Your task to perform on an android device: turn on showing notifications on the lock screen Image 0: 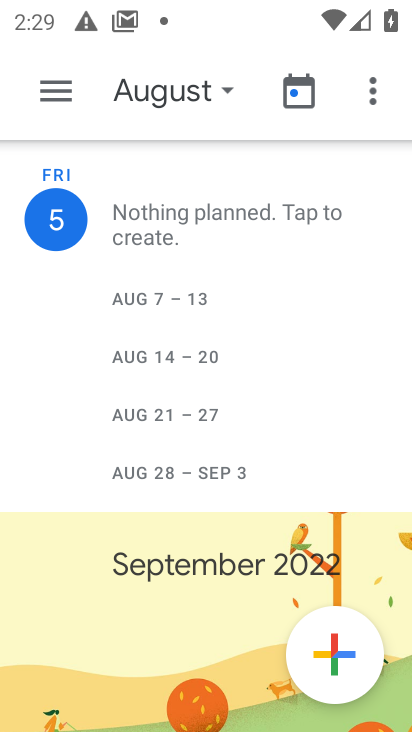
Step 0: press home button
Your task to perform on an android device: turn on showing notifications on the lock screen Image 1: 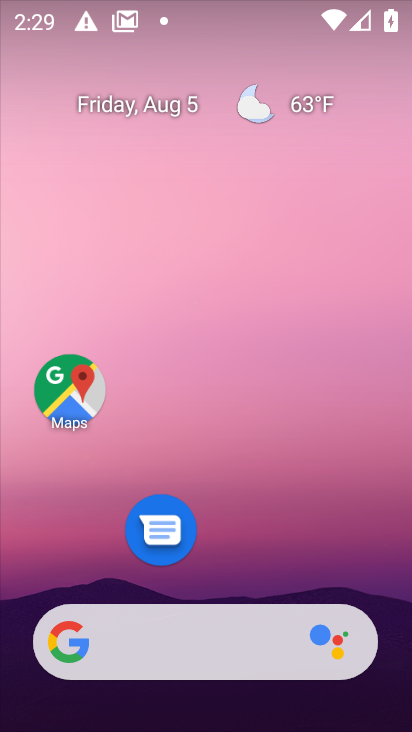
Step 1: drag from (248, 626) to (261, 80)
Your task to perform on an android device: turn on showing notifications on the lock screen Image 2: 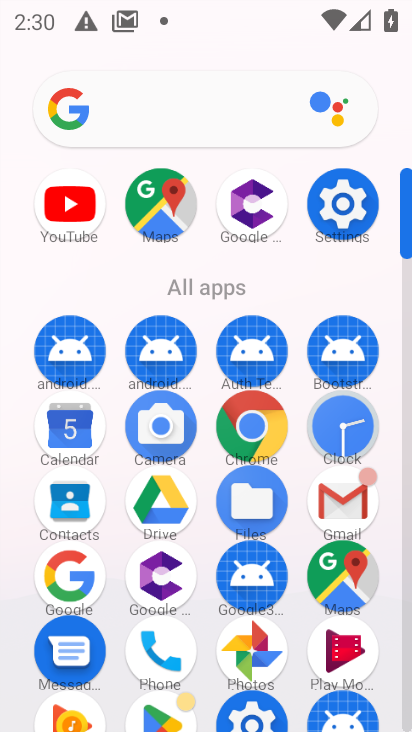
Step 2: click (328, 207)
Your task to perform on an android device: turn on showing notifications on the lock screen Image 3: 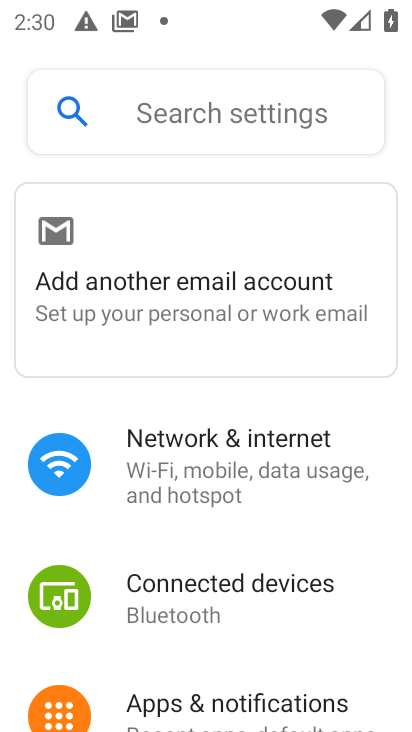
Step 3: drag from (266, 411) to (275, 78)
Your task to perform on an android device: turn on showing notifications on the lock screen Image 4: 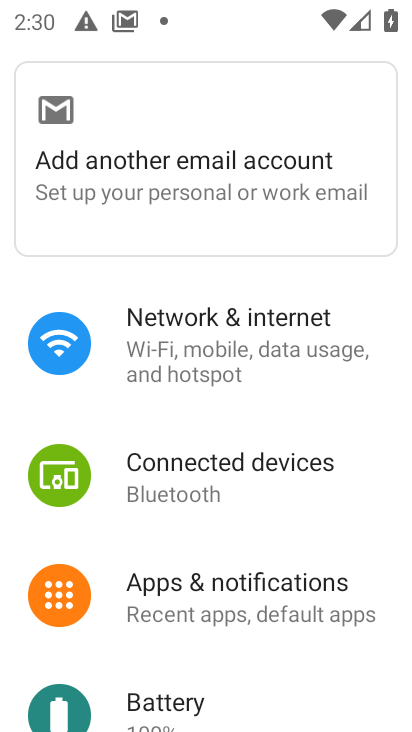
Step 4: click (324, 605)
Your task to perform on an android device: turn on showing notifications on the lock screen Image 5: 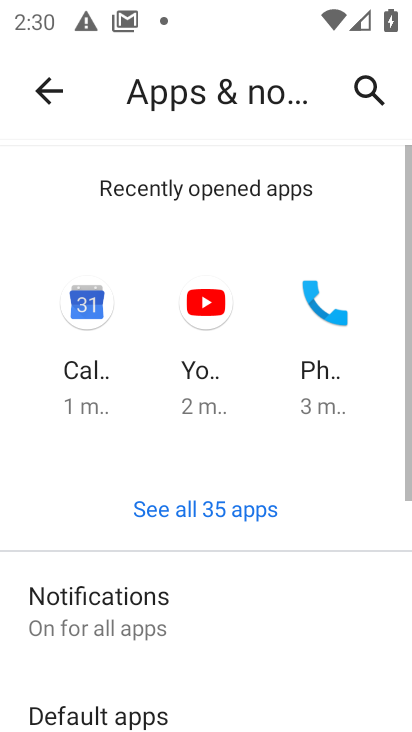
Step 5: drag from (276, 204) to (284, 111)
Your task to perform on an android device: turn on showing notifications on the lock screen Image 6: 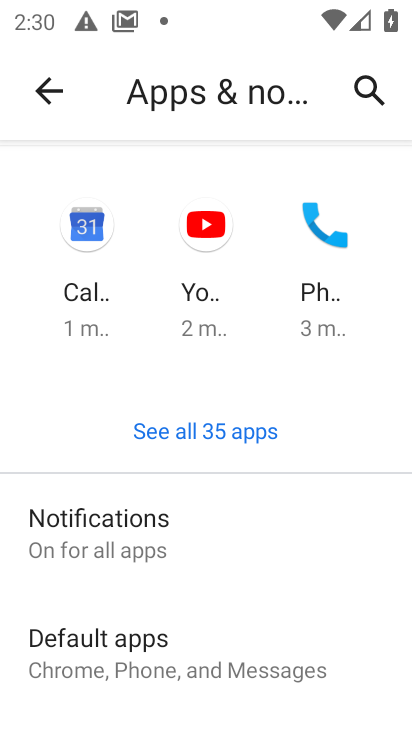
Step 6: drag from (292, 552) to (300, 111)
Your task to perform on an android device: turn on showing notifications on the lock screen Image 7: 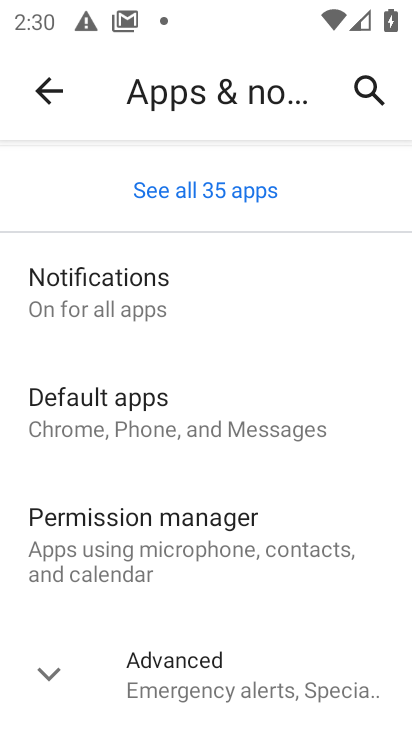
Step 7: click (207, 688)
Your task to perform on an android device: turn on showing notifications on the lock screen Image 8: 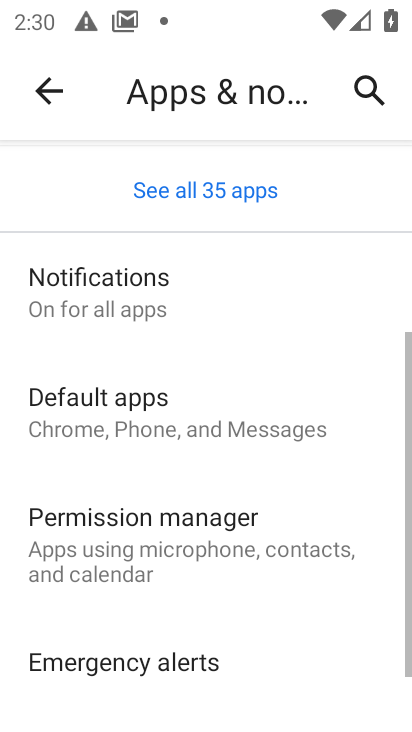
Step 8: drag from (286, 629) to (297, 147)
Your task to perform on an android device: turn on showing notifications on the lock screen Image 9: 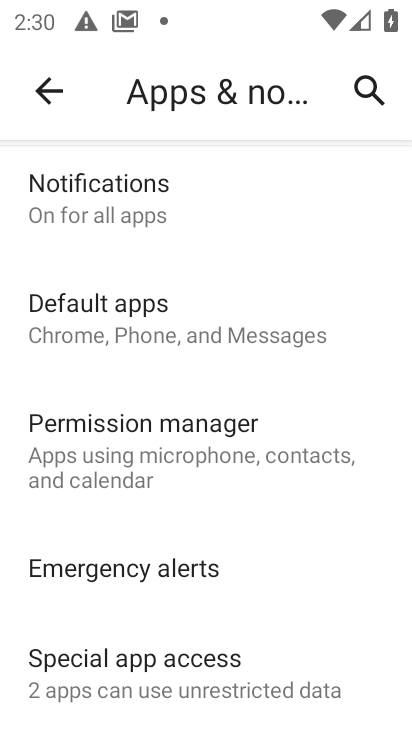
Step 9: click (214, 188)
Your task to perform on an android device: turn on showing notifications on the lock screen Image 10: 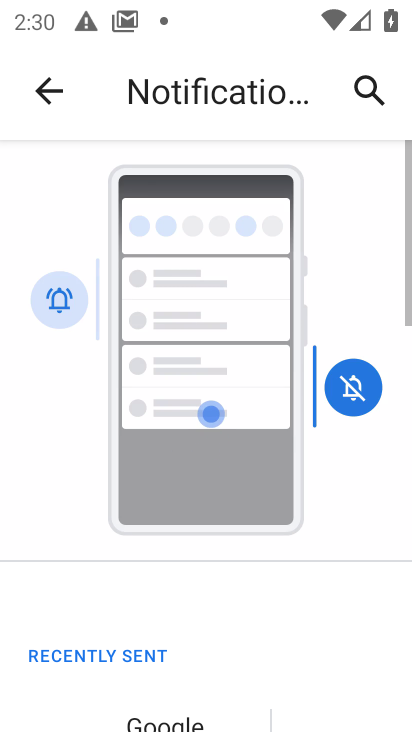
Step 10: drag from (268, 633) to (274, 179)
Your task to perform on an android device: turn on showing notifications on the lock screen Image 11: 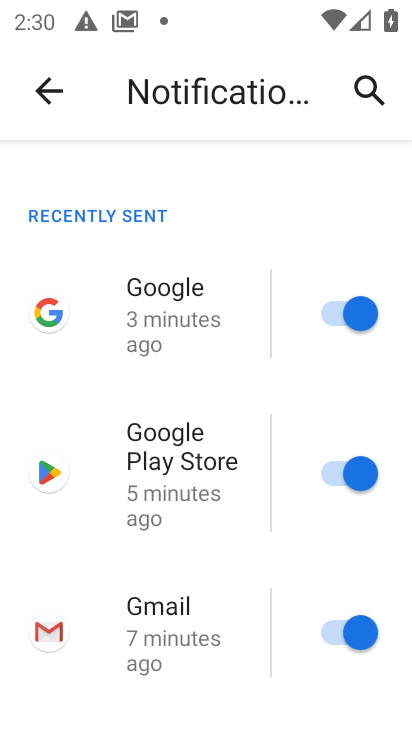
Step 11: drag from (214, 675) to (315, 11)
Your task to perform on an android device: turn on showing notifications on the lock screen Image 12: 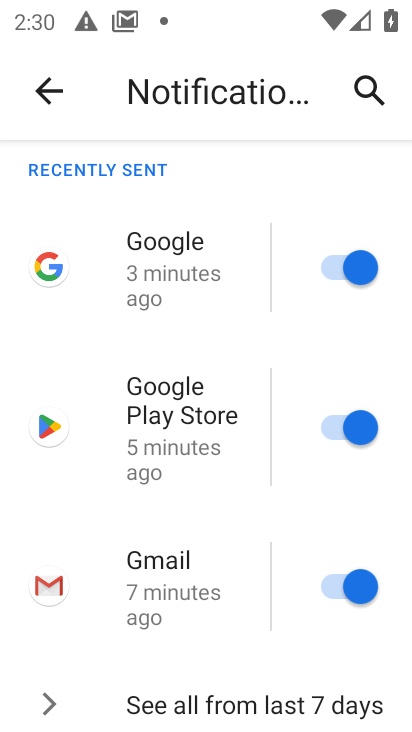
Step 12: drag from (281, 607) to (289, 108)
Your task to perform on an android device: turn on showing notifications on the lock screen Image 13: 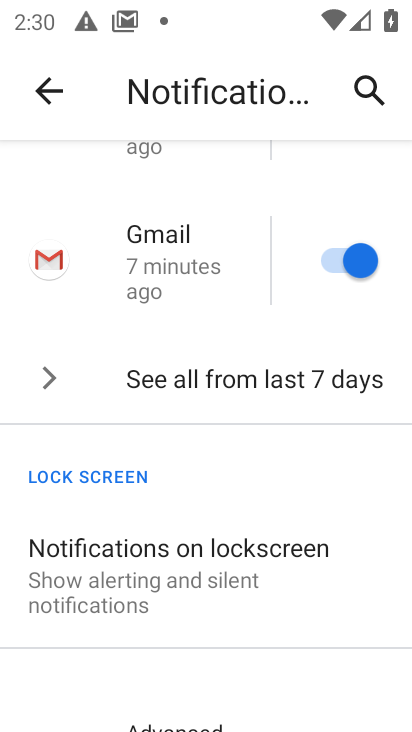
Step 13: click (219, 574)
Your task to perform on an android device: turn on showing notifications on the lock screen Image 14: 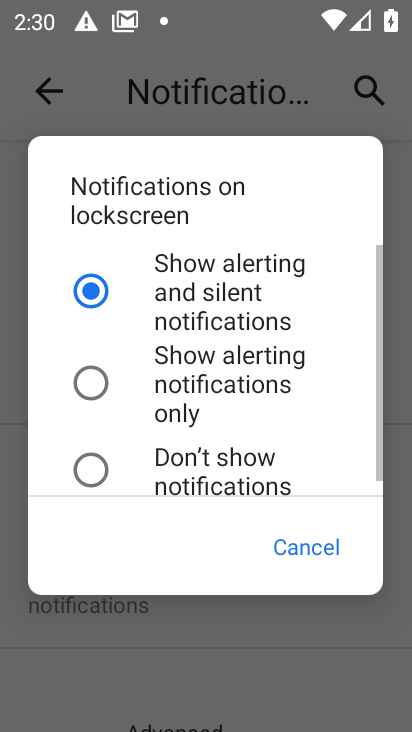
Step 14: task complete